Your task to perform on an android device: Go to settings Image 0: 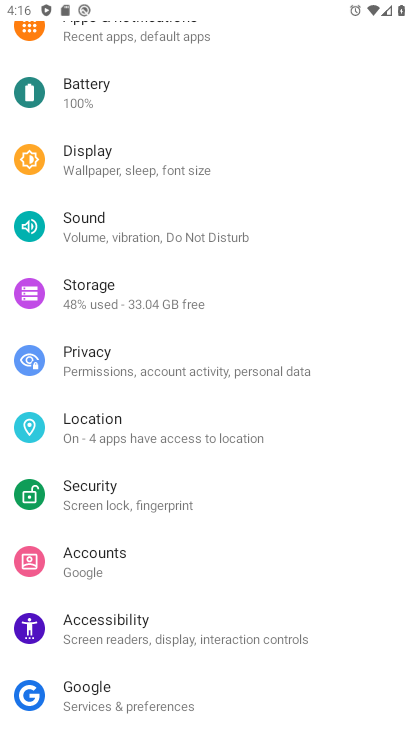
Step 0: drag from (202, 589) to (150, 47)
Your task to perform on an android device: Go to settings Image 1: 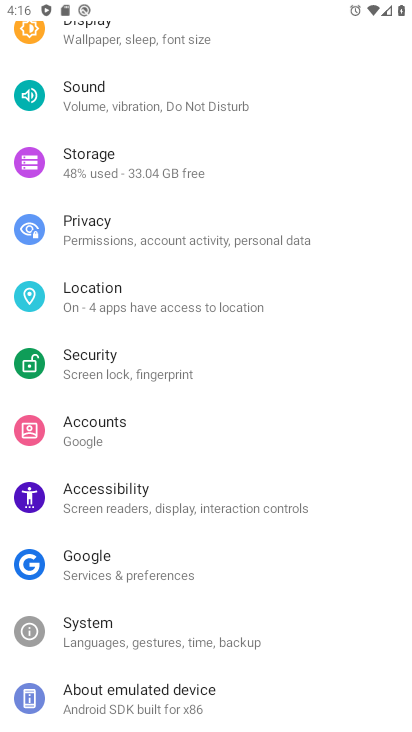
Step 1: task complete